Your task to perform on an android device: toggle improve location accuracy Image 0: 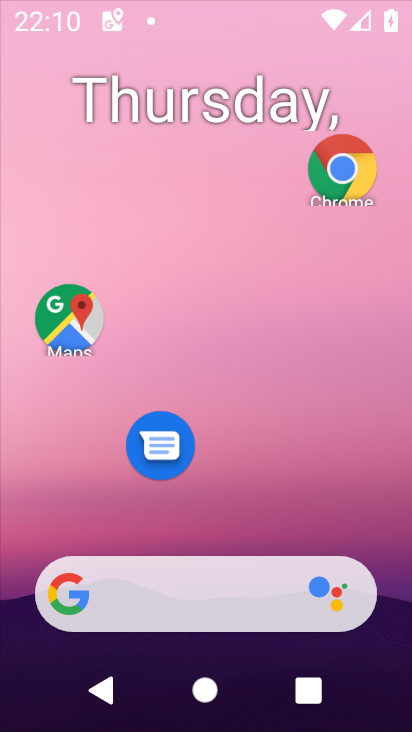
Step 0: click (259, 75)
Your task to perform on an android device: toggle improve location accuracy Image 1: 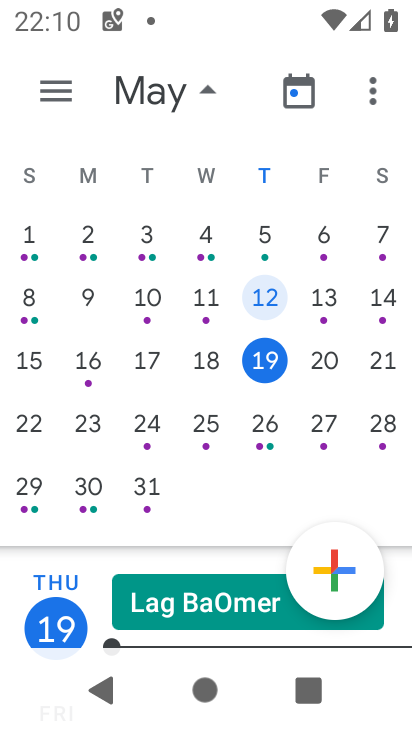
Step 1: drag from (221, 558) to (224, 116)
Your task to perform on an android device: toggle improve location accuracy Image 2: 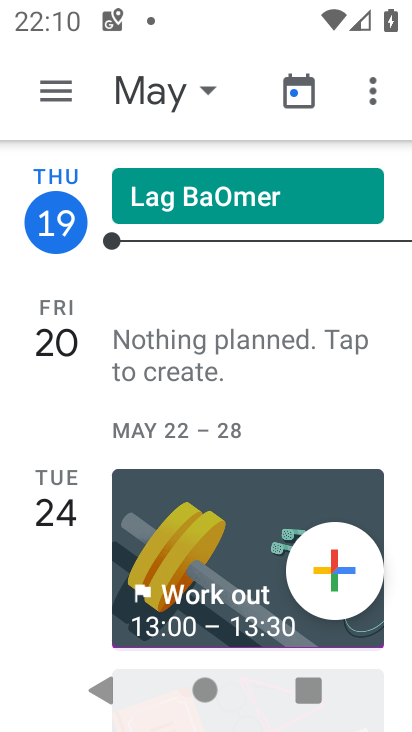
Step 2: drag from (222, 654) to (241, 191)
Your task to perform on an android device: toggle improve location accuracy Image 3: 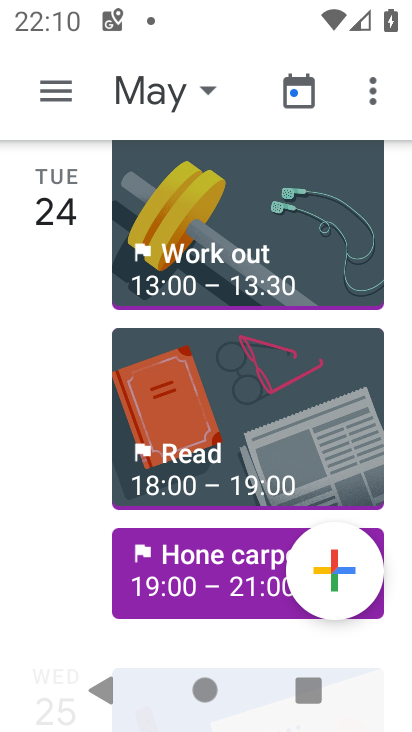
Step 3: drag from (207, 648) to (210, 265)
Your task to perform on an android device: toggle improve location accuracy Image 4: 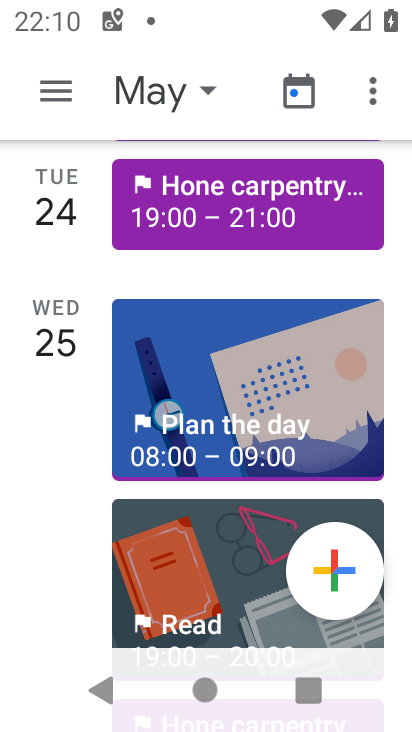
Step 4: click (169, 89)
Your task to perform on an android device: toggle improve location accuracy Image 5: 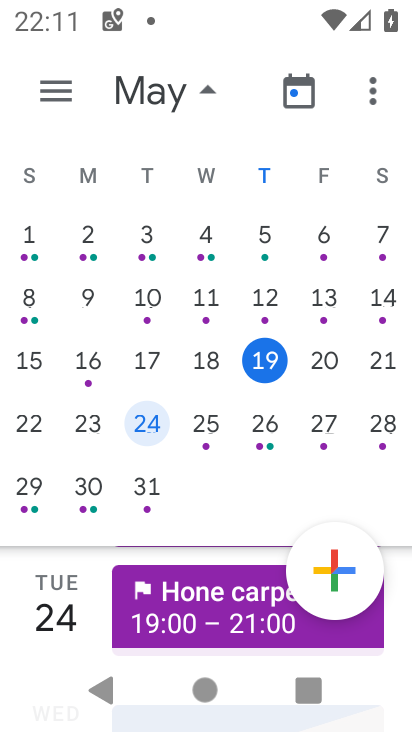
Step 5: press home button
Your task to perform on an android device: toggle improve location accuracy Image 6: 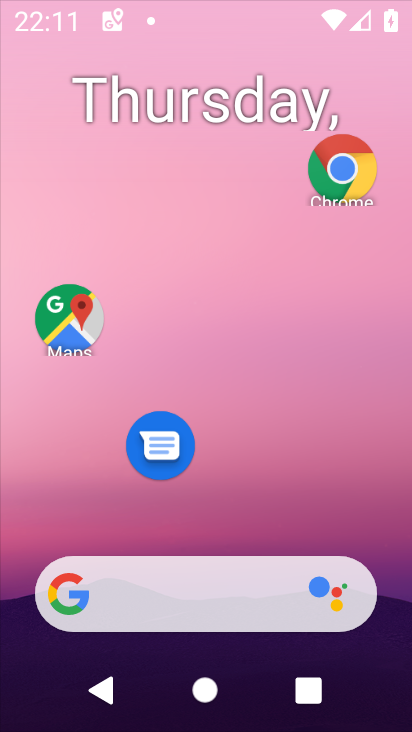
Step 6: drag from (170, 485) to (224, 178)
Your task to perform on an android device: toggle improve location accuracy Image 7: 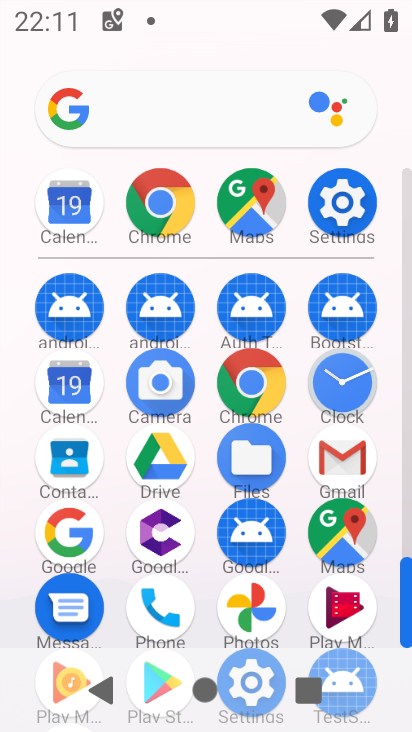
Step 7: click (332, 212)
Your task to perform on an android device: toggle improve location accuracy Image 8: 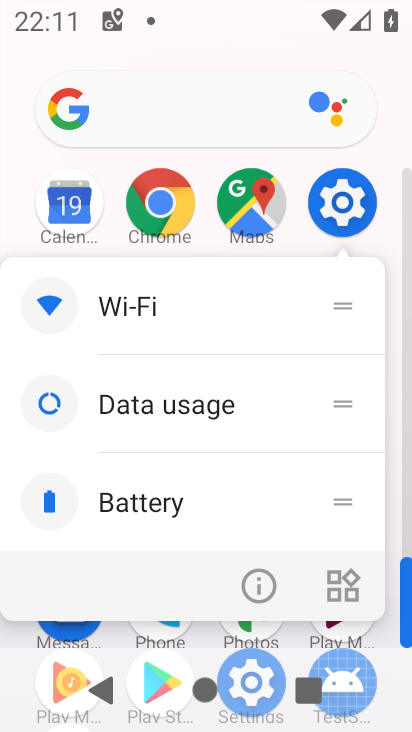
Step 8: click (251, 607)
Your task to perform on an android device: toggle improve location accuracy Image 9: 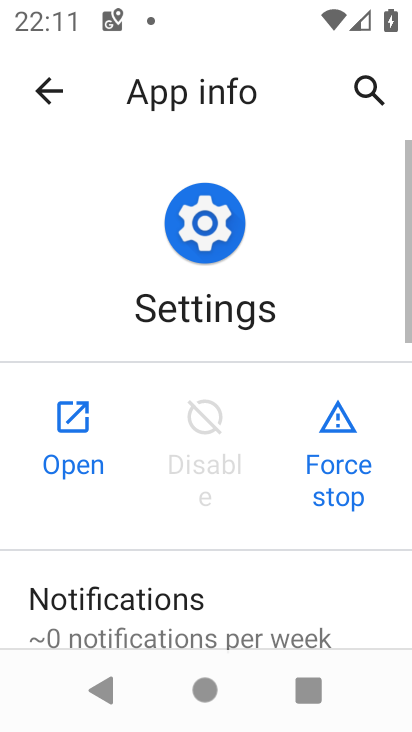
Step 9: click (90, 407)
Your task to perform on an android device: toggle improve location accuracy Image 10: 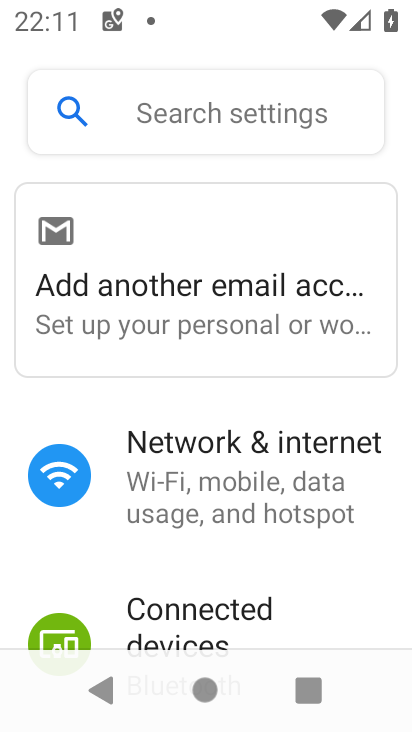
Step 10: drag from (226, 539) to (300, 92)
Your task to perform on an android device: toggle improve location accuracy Image 11: 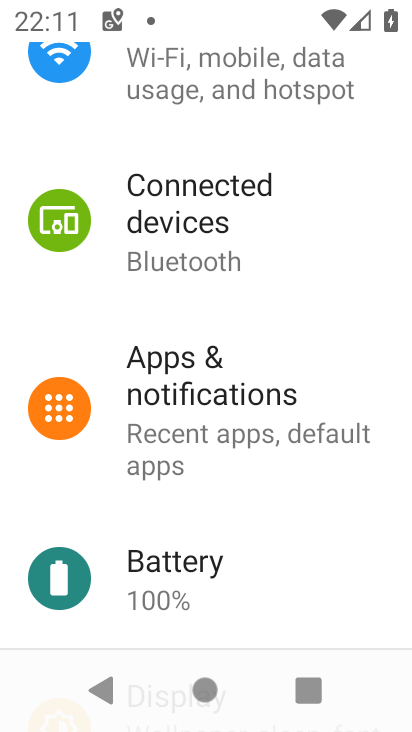
Step 11: drag from (222, 525) to (278, 138)
Your task to perform on an android device: toggle improve location accuracy Image 12: 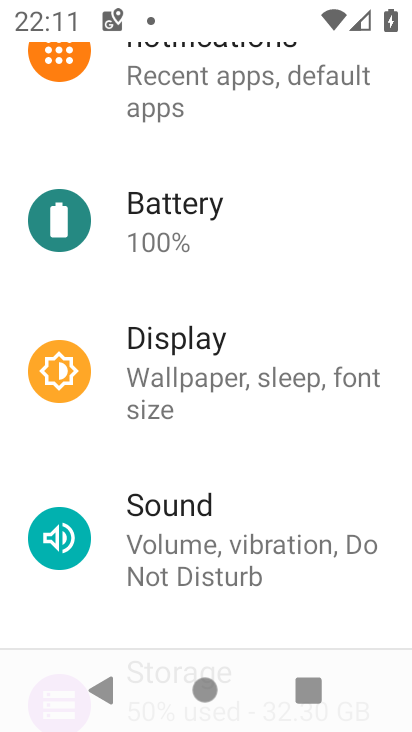
Step 12: drag from (255, 161) to (260, 372)
Your task to perform on an android device: toggle improve location accuracy Image 13: 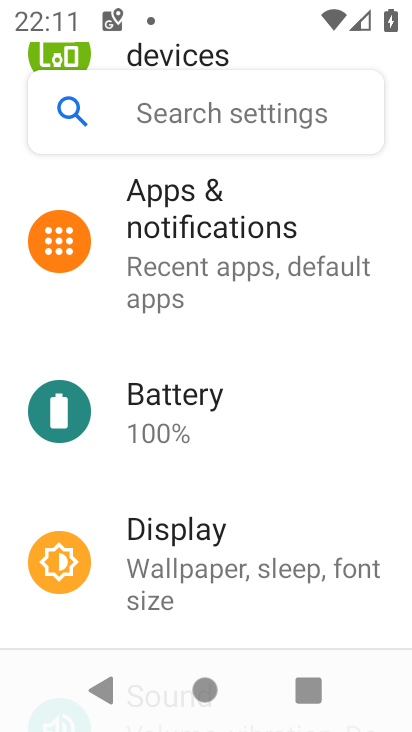
Step 13: drag from (215, 539) to (215, 307)
Your task to perform on an android device: toggle improve location accuracy Image 14: 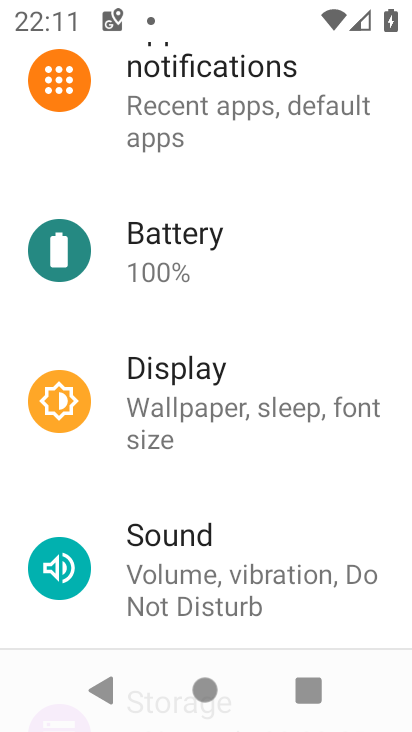
Step 14: drag from (246, 571) to (266, 295)
Your task to perform on an android device: toggle improve location accuracy Image 15: 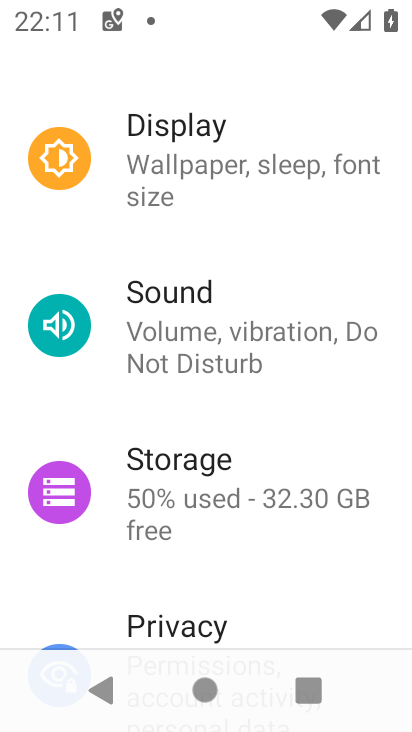
Step 15: drag from (269, 231) to (289, 684)
Your task to perform on an android device: toggle improve location accuracy Image 16: 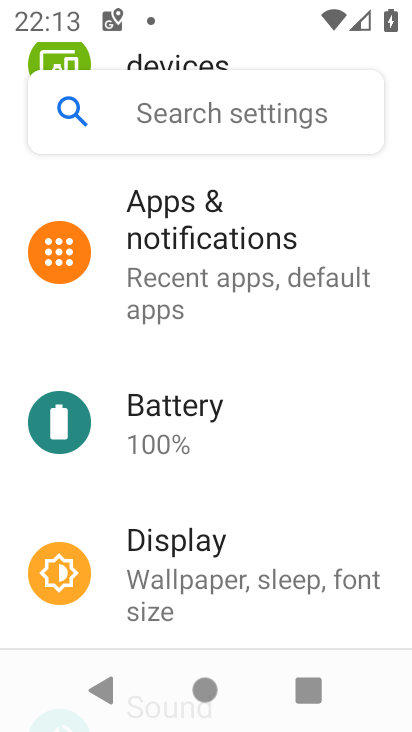
Step 16: drag from (155, 559) to (263, 182)
Your task to perform on an android device: toggle improve location accuracy Image 17: 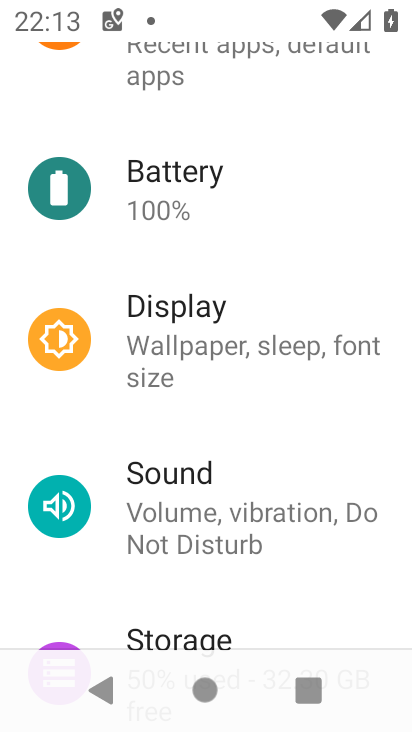
Step 17: drag from (240, 530) to (296, 181)
Your task to perform on an android device: toggle improve location accuracy Image 18: 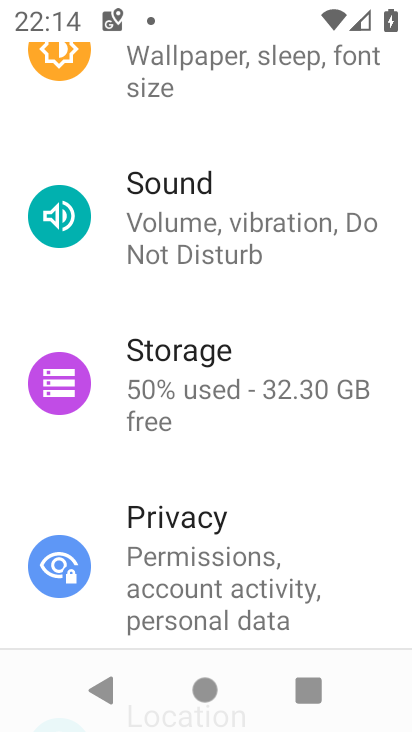
Step 18: drag from (224, 507) to (288, 264)
Your task to perform on an android device: toggle improve location accuracy Image 19: 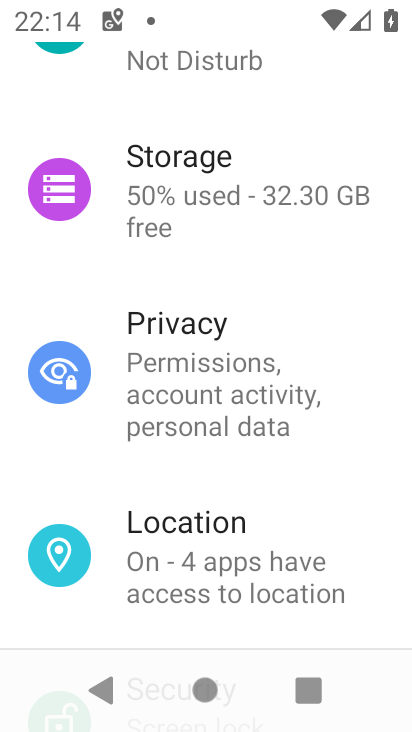
Step 19: click (190, 551)
Your task to perform on an android device: toggle improve location accuracy Image 20: 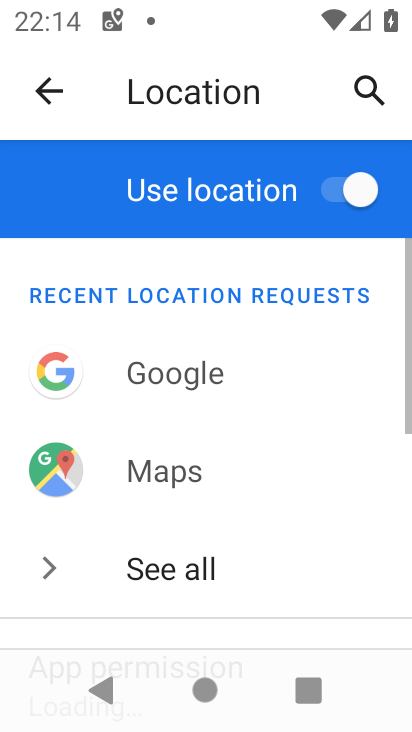
Step 20: drag from (201, 536) to (332, 52)
Your task to perform on an android device: toggle improve location accuracy Image 21: 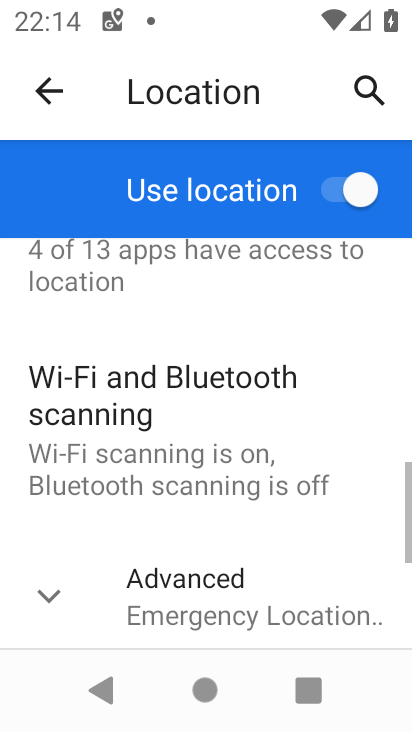
Step 21: click (143, 547)
Your task to perform on an android device: toggle improve location accuracy Image 22: 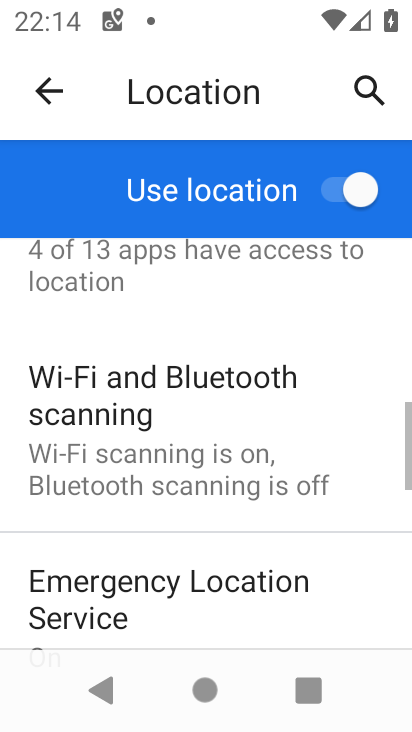
Step 22: drag from (181, 558) to (295, 167)
Your task to perform on an android device: toggle improve location accuracy Image 23: 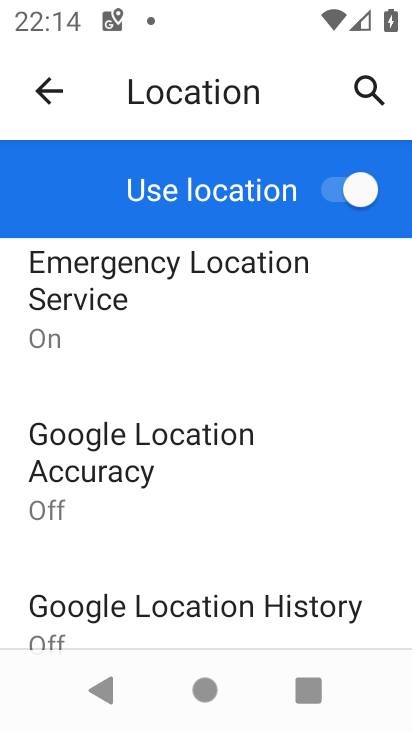
Step 23: click (178, 494)
Your task to perform on an android device: toggle improve location accuracy Image 24: 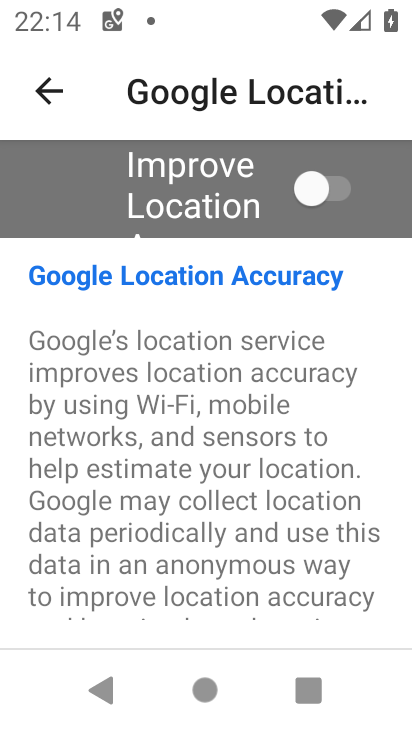
Step 24: click (276, 174)
Your task to perform on an android device: toggle improve location accuracy Image 25: 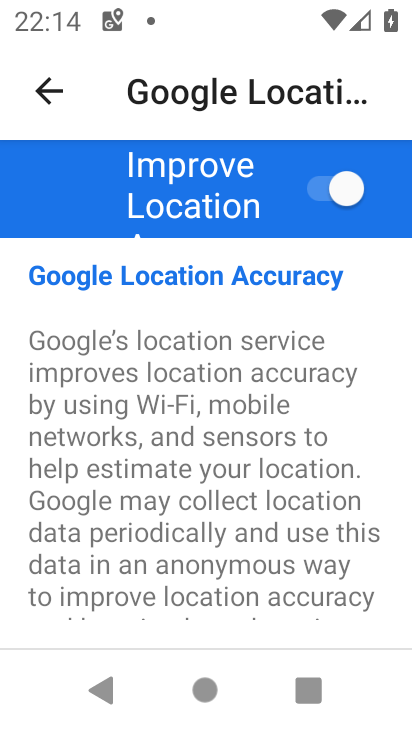
Step 25: task complete